Your task to perform on an android device: check battery use Image 0: 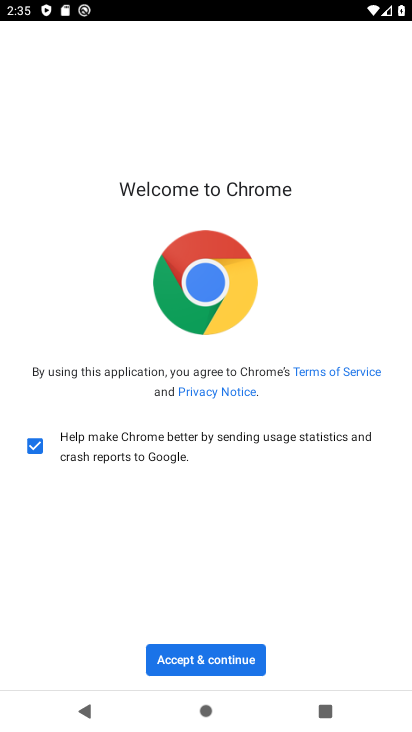
Step 0: press home button
Your task to perform on an android device: check battery use Image 1: 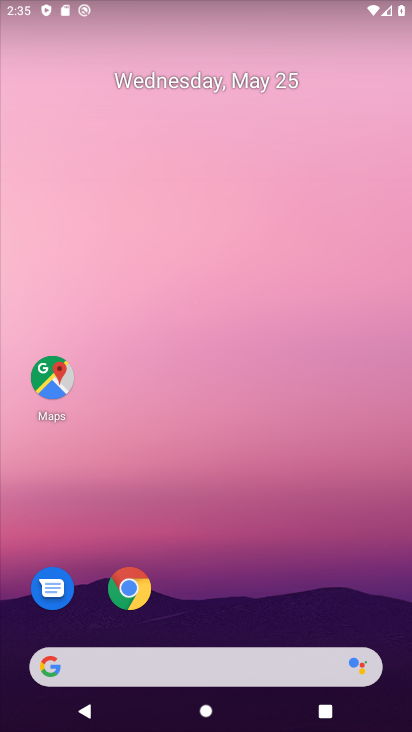
Step 1: drag from (351, 596) to (316, 99)
Your task to perform on an android device: check battery use Image 2: 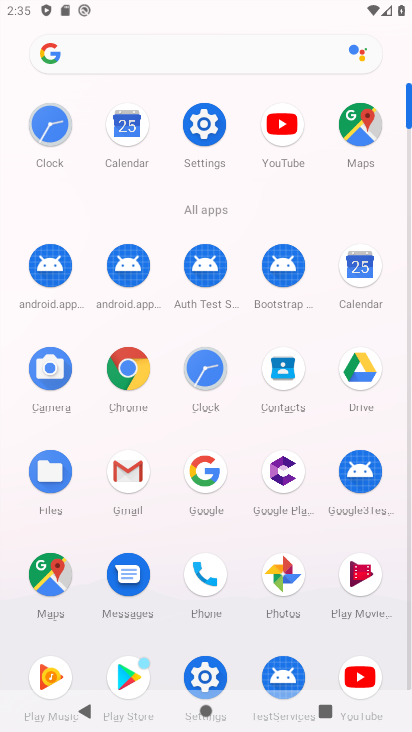
Step 2: click (203, 130)
Your task to perform on an android device: check battery use Image 3: 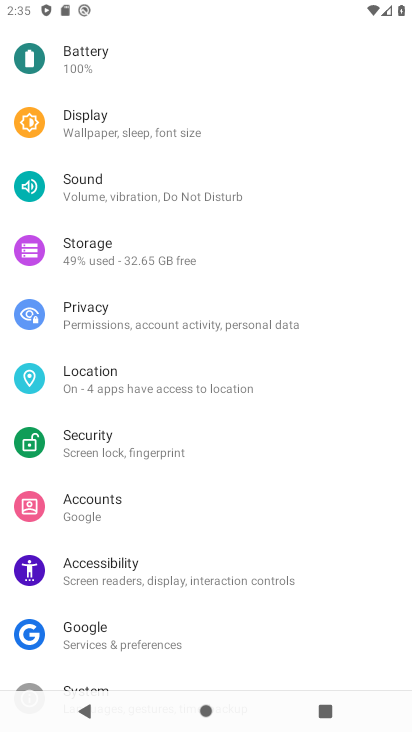
Step 3: drag from (203, 130) to (302, 729)
Your task to perform on an android device: check battery use Image 4: 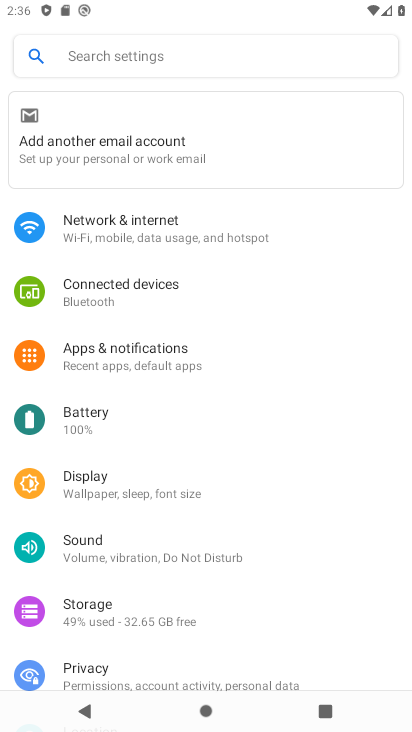
Step 4: click (99, 419)
Your task to perform on an android device: check battery use Image 5: 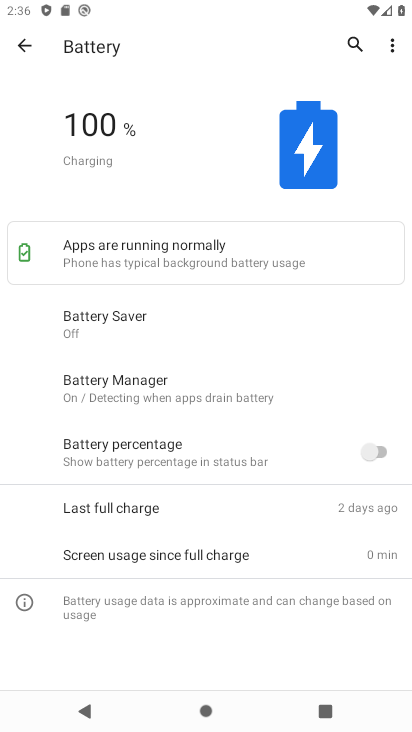
Step 5: task complete